Your task to perform on an android device: Go to wifi settings Image 0: 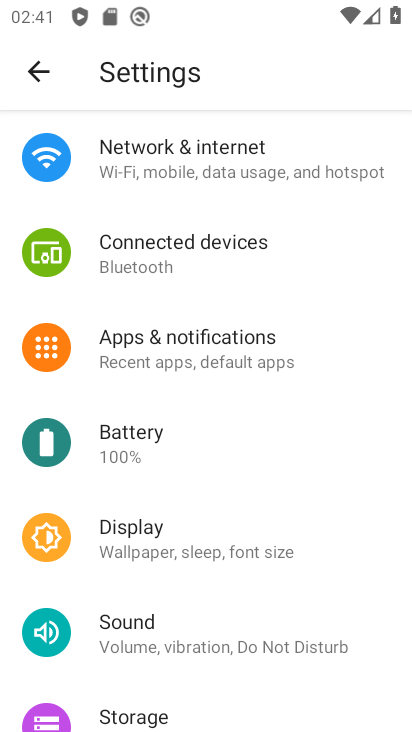
Step 0: drag from (237, 5) to (253, 519)
Your task to perform on an android device: Go to wifi settings Image 1: 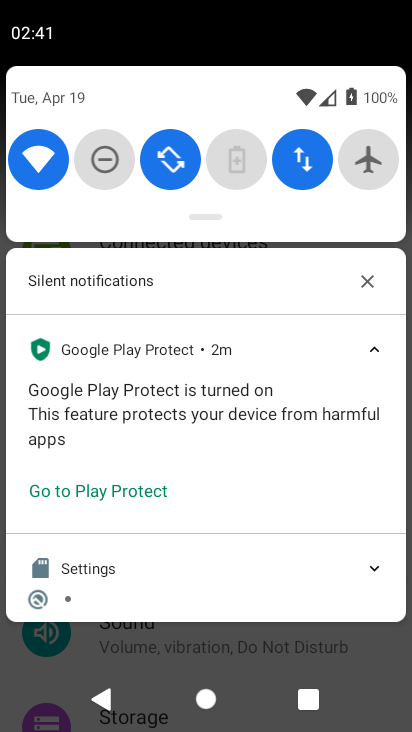
Step 1: drag from (258, 259) to (258, 565)
Your task to perform on an android device: Go to wifi settings Image 2: 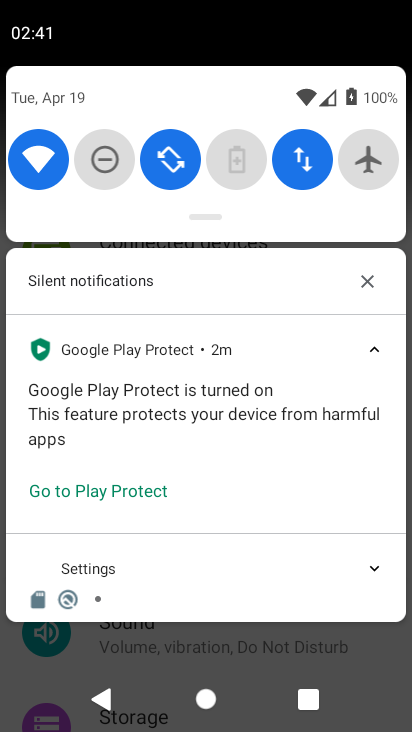
Step 2: click (40, 147)
Your task to perform on an android device: Go to wifi settings Image 3: 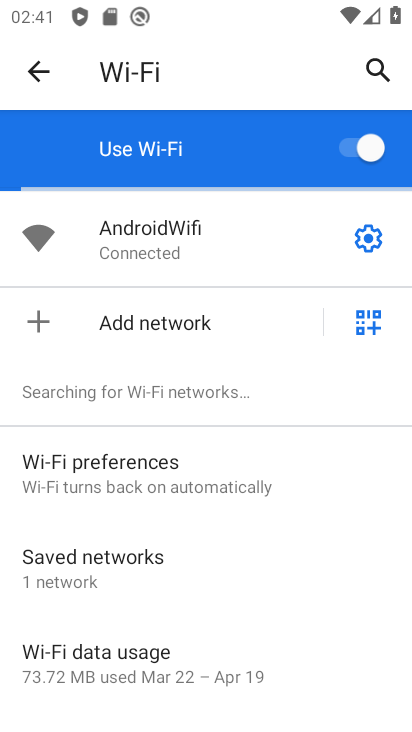
Step 3: task complete